Your task to perform on an android device: Add "razer blade" to the cart on ebay Image 0: 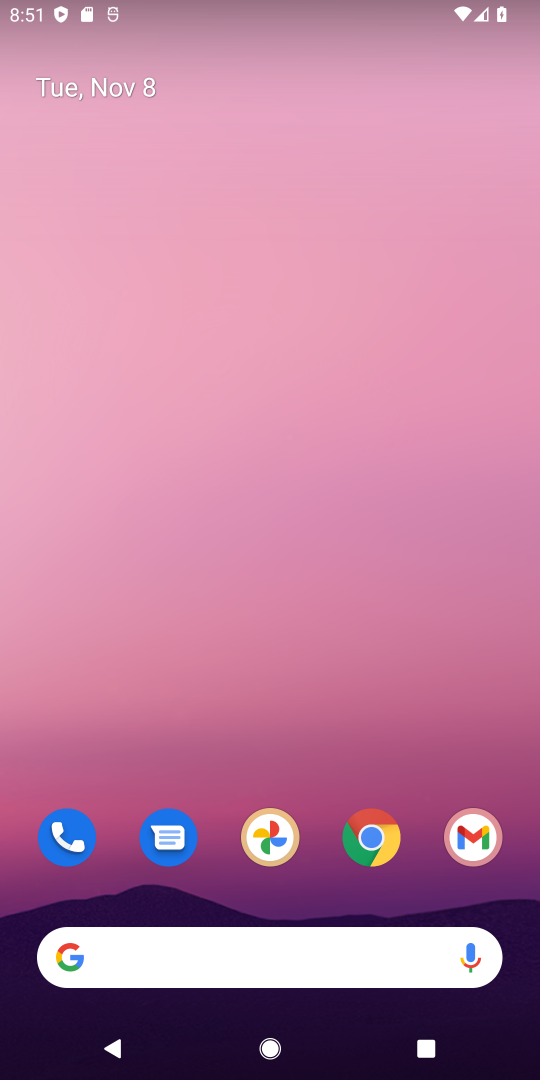
Step 0: click (368, 838)
Your task to perform on an android device: Add "razer blade" to the cart on ebay Image 1: 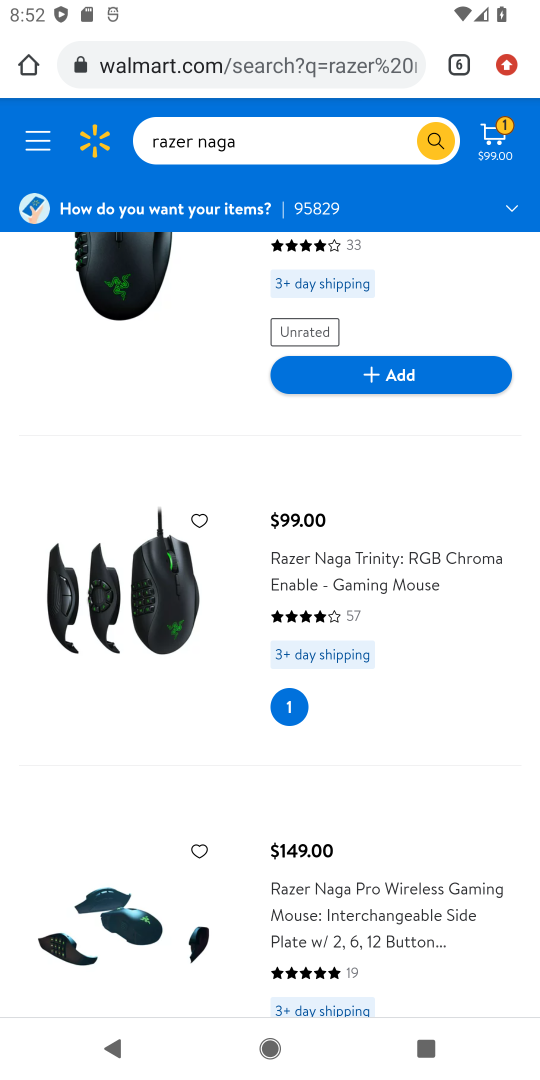
Step 1: click (452, 61)
Your task to perform on an android device: Add "razer blade" to the cart on ebay Image 2: 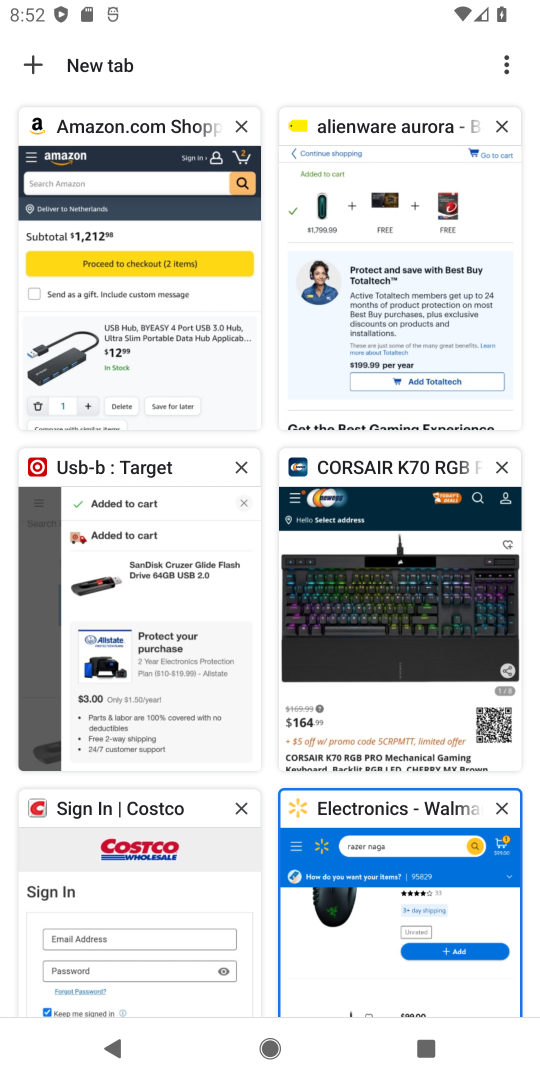
Step 2: click (32, 55)
Your task to perform on an android device: Add "razer blade" to the cart on ebay Image 3: 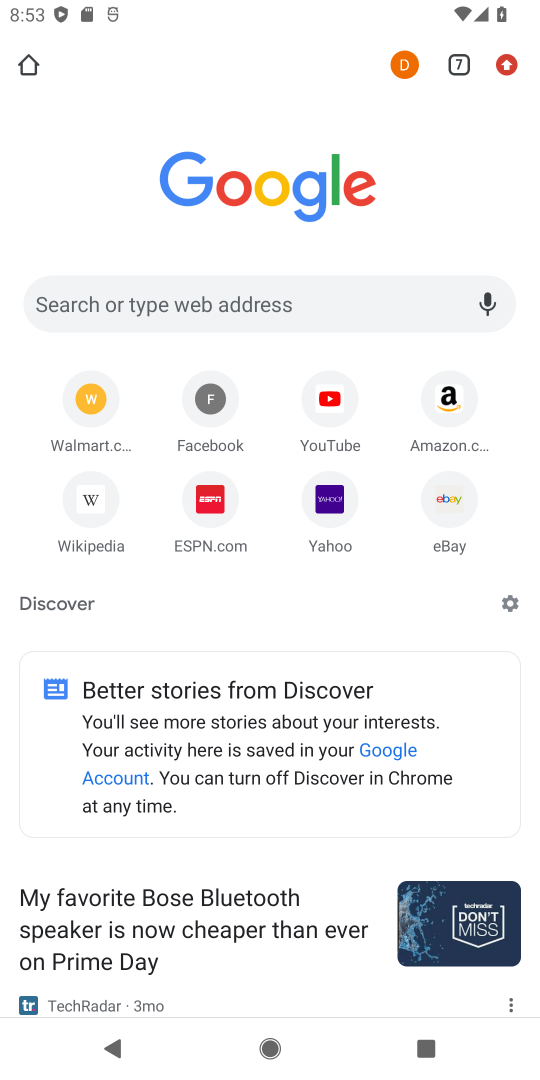
Step 3: click (450, 513)
Your task to perform on an android device: Add "razer blade" to the cart on ebay Image 4: 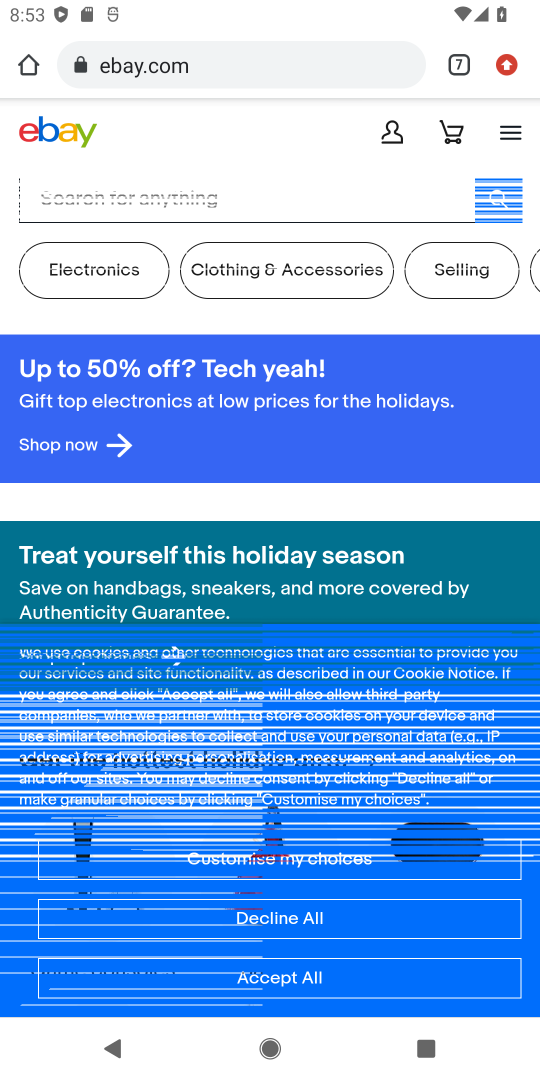
Step 4: click (290, 915)
Your task to perform on an android device: Add "razer blade" to the cart on ebay Image 5: 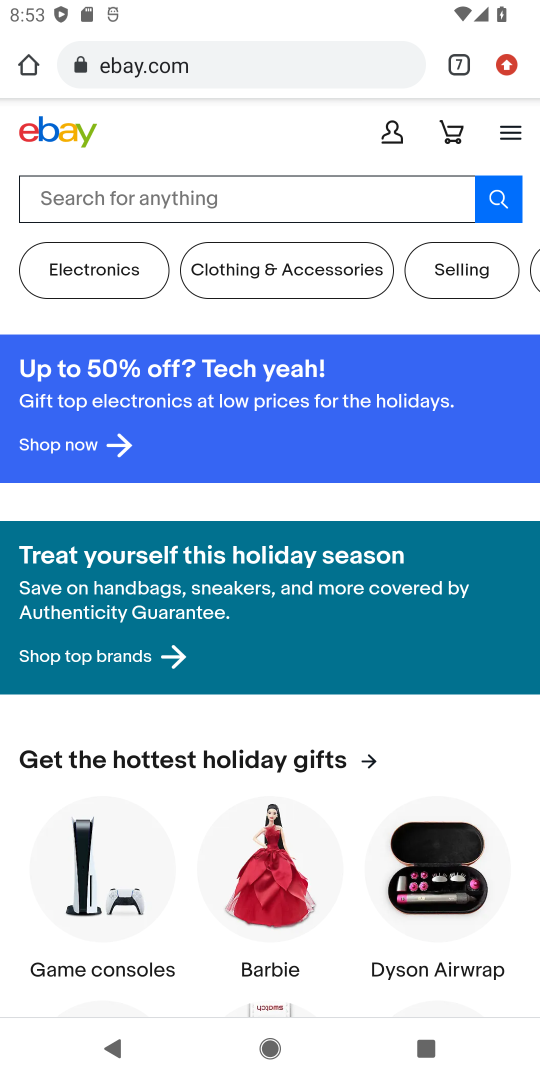
Step 5: click (48, 192)
Your task to perform on an android device: Add "razer blade" to the cart on ebay Image 6: 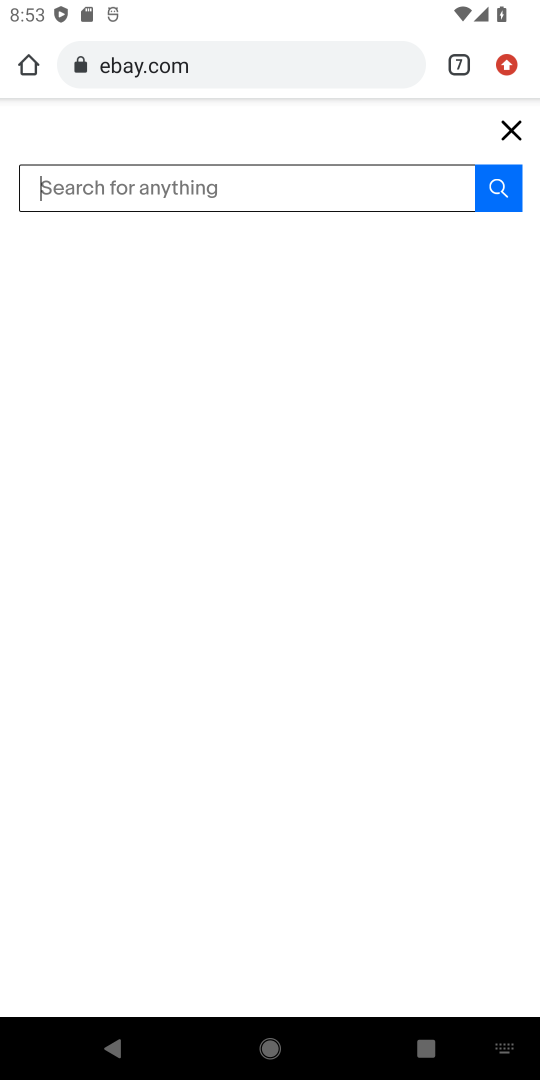
Step 6: type "razer blade"
Your task to perform on an android device: Add "razer blade" to the cart on ebay Image 7: 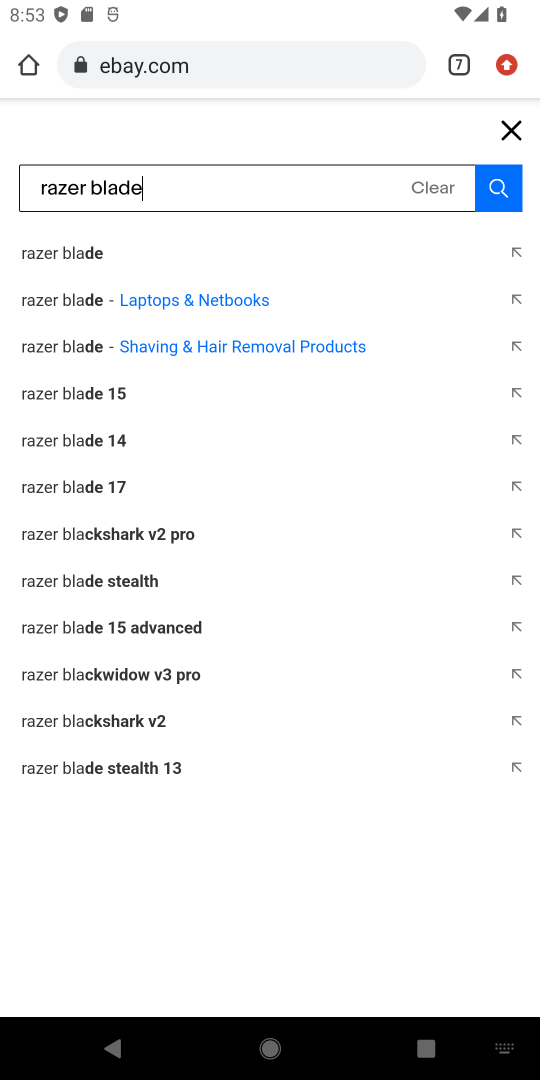
Step 7: click (78, 295)
Your task to perform on an android device: Add "razer blade" to the cart on ebay Image 8: 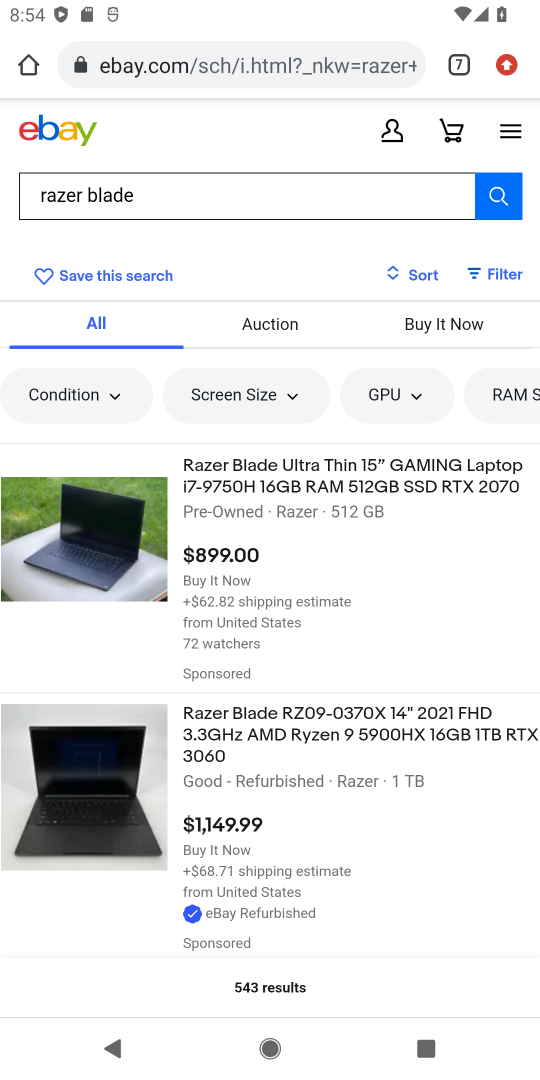
Step 8: click (281, 501)
Your task to perform on an android device: Add "razer blade" to the cart on ebay Image 9: 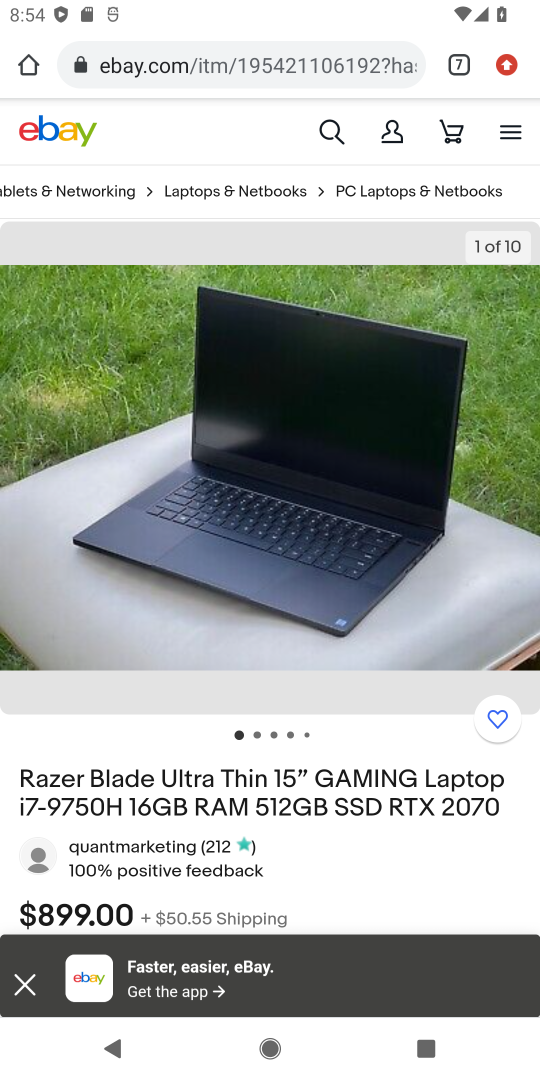
Step 9: drag from (365, 842) to (494, 103)
Your task to perform on an android device: Add "razer blade" to the cart on ebay Image 10: 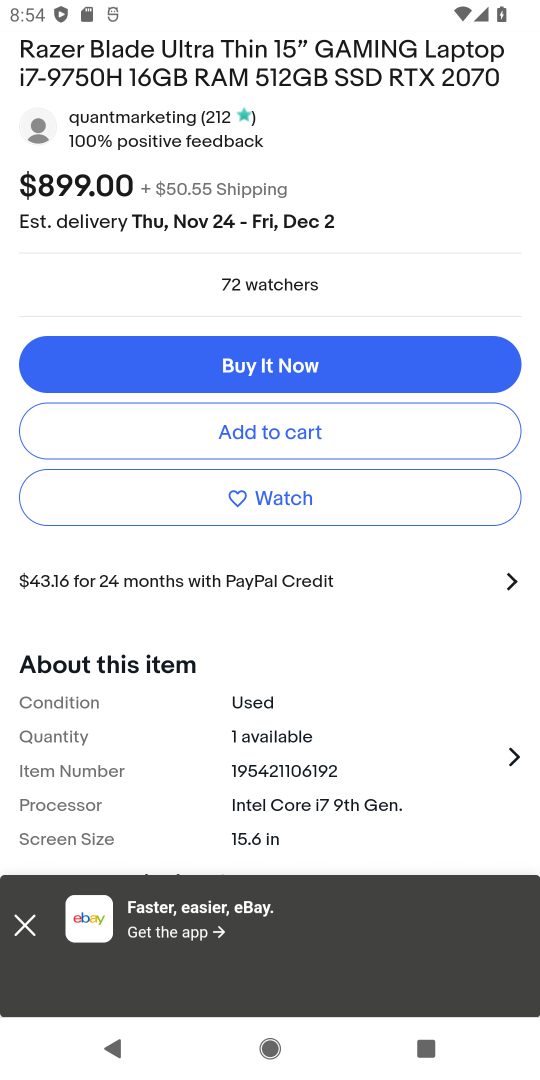
Step 10: click (319, 433)
Your task to perform on an android device: Add "razer blade" to the cart on ebay Image 11: 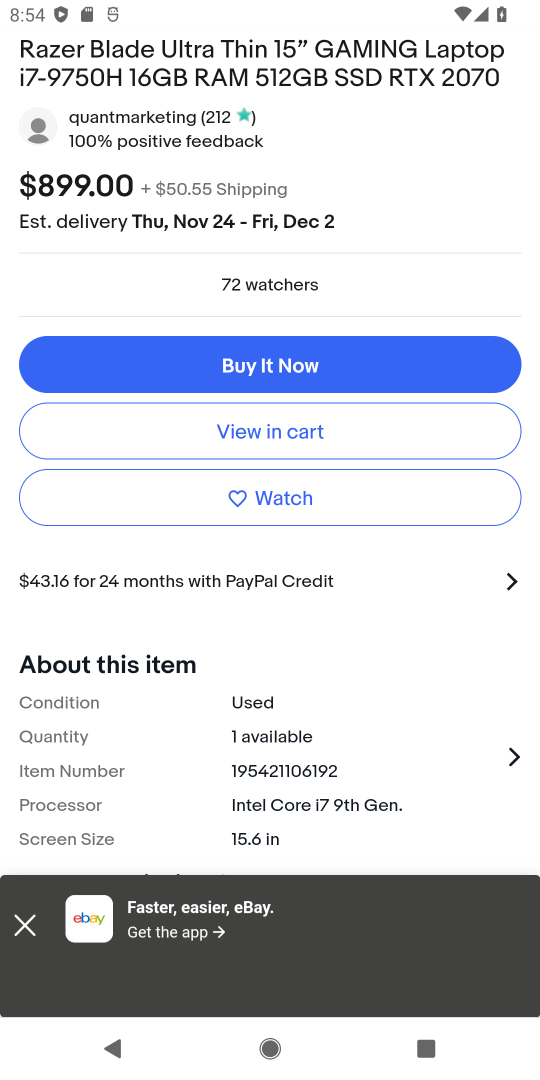
Step 11: click (283, 424)
Your task to perform on an android device: Add "razer blade" to the cart on ebay Image 12: 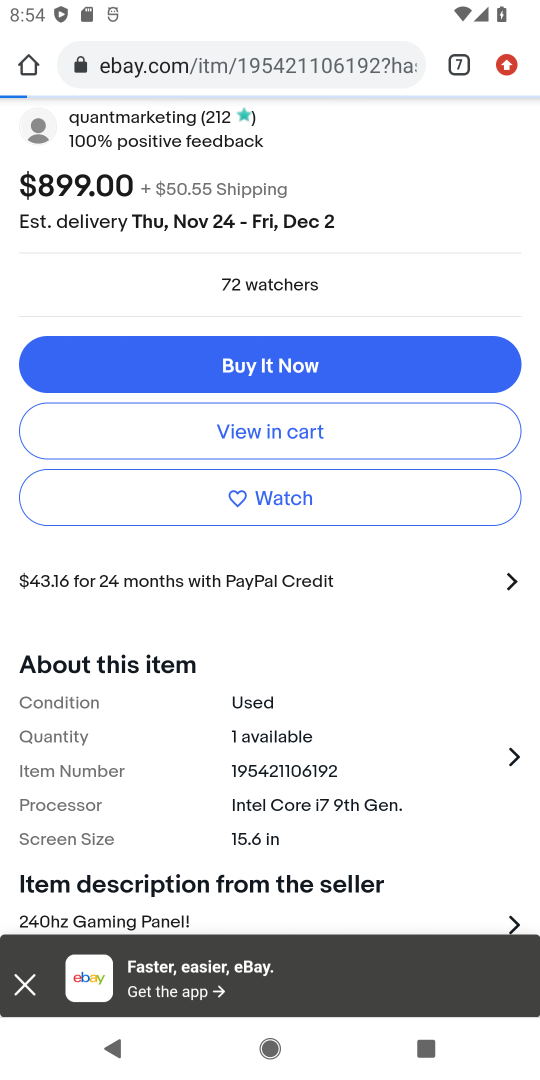
Step 12: task complete